Your task to perform on an android device: Go to display settings Image 0: 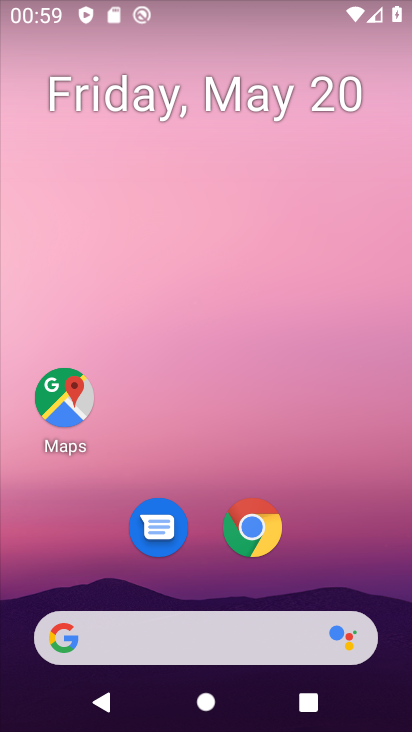
Step 0: press home button
Your task to perform on an android device: Go to display settings Image 1: 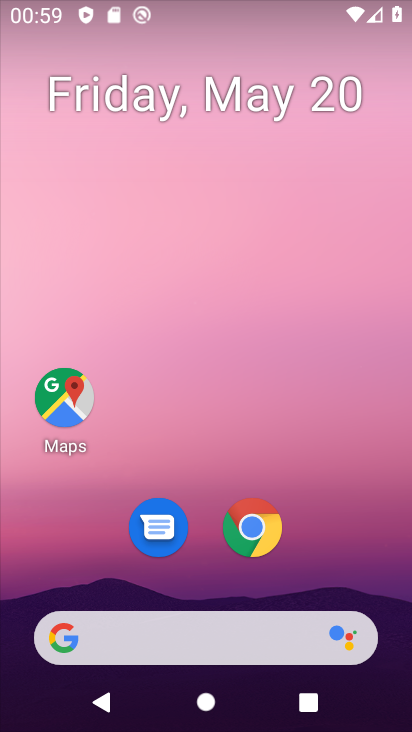
Step 1: drag from (208, 580) to (213, 123)
Your task to perform on an android device: Go to display settings Image 2: 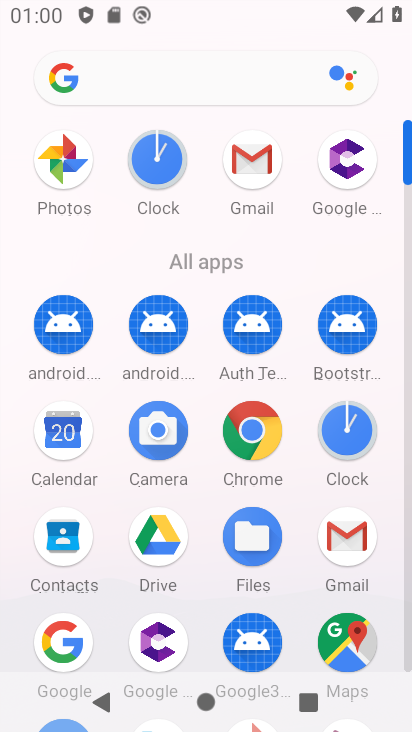
Step 2: drag from (199, 593) to (246, 133)
Your task to perform on an android device: Go to display settings Image 3: 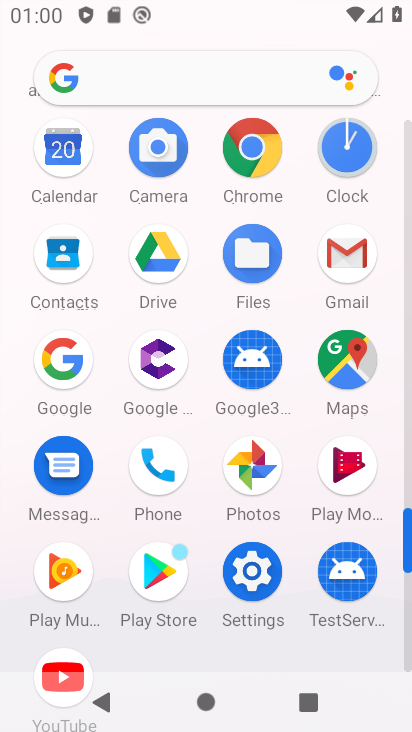
Step 3: click (248, 564)
Your task to perform on an android device: Go to display settings Image 4: 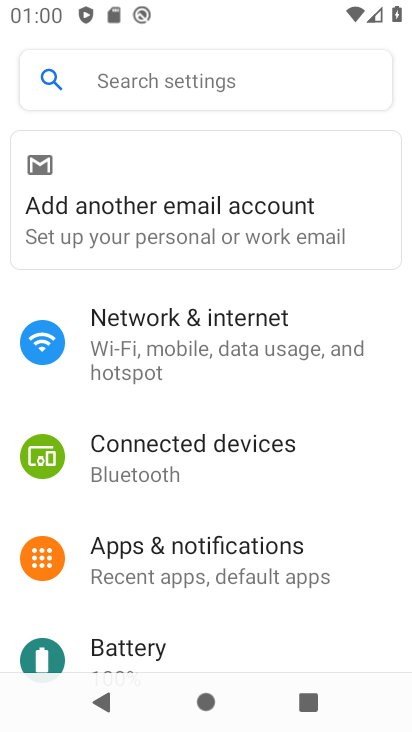
Step 4: drag from (217, 620) to (243, 183)
Your task to perform on an android device: Go to display settings Image 5: 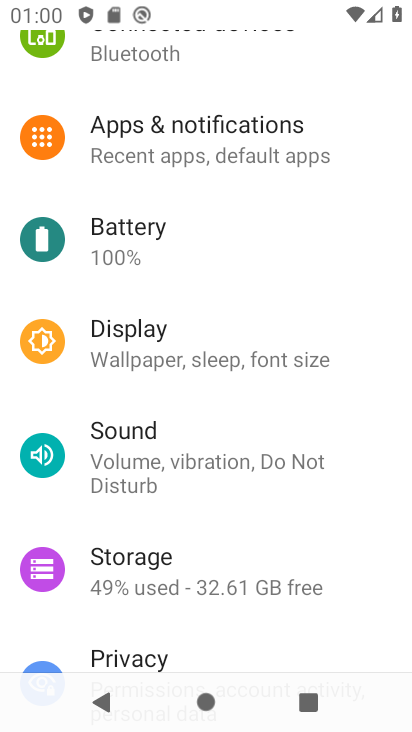
Step 5: click (177, 331)
Your task to perform on an android device: Go to display settings Image 6: 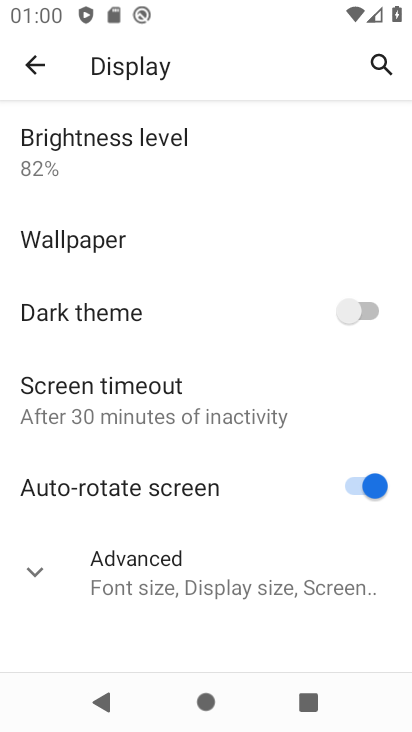
Step 6: click (26, 567)
Your task to perform on an android device: Go to display settings Image 7: 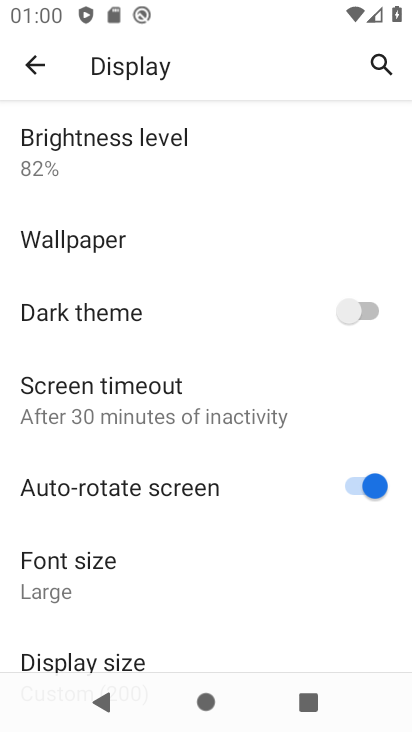
Step 7: drag from (117, 613) to (148, 201)
Your task to perform on an android device: Go to display settings Image 8: 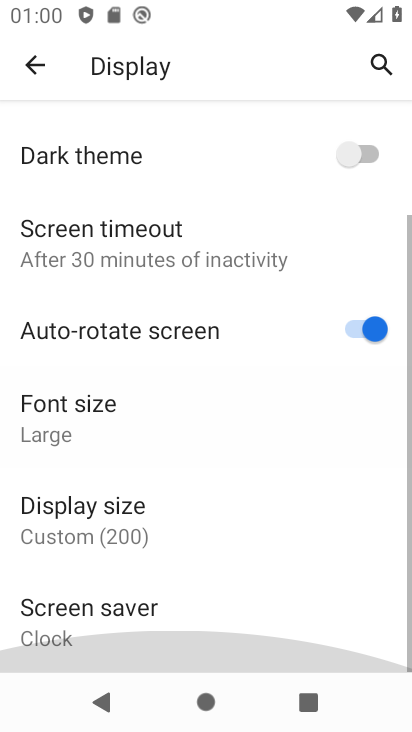
Step 8: click (148, 188)
Your task to perform on an android device: Go to display settings Image 9: 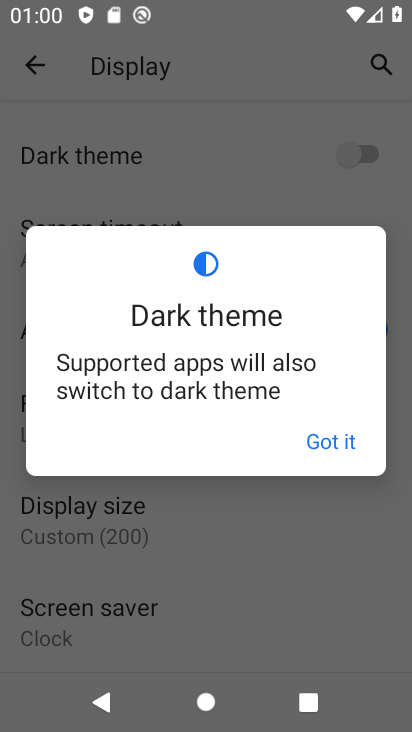
Step 9: click (331, 439)
Your task to perform on an android device: Go to display settings Image 10: 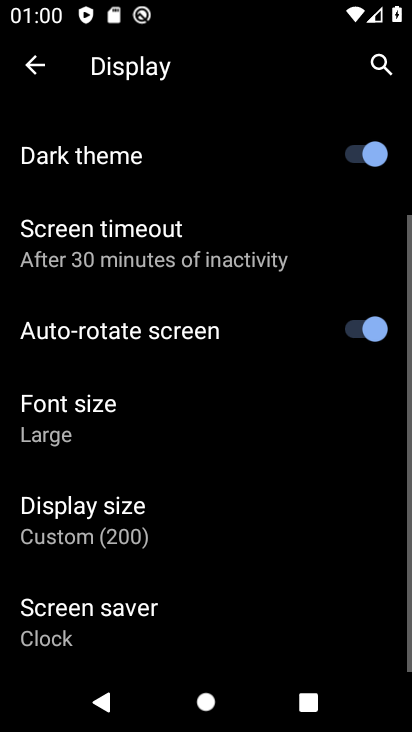
Step 10: task complete